Your task to perform on an android device: Open my contact list Image 0: 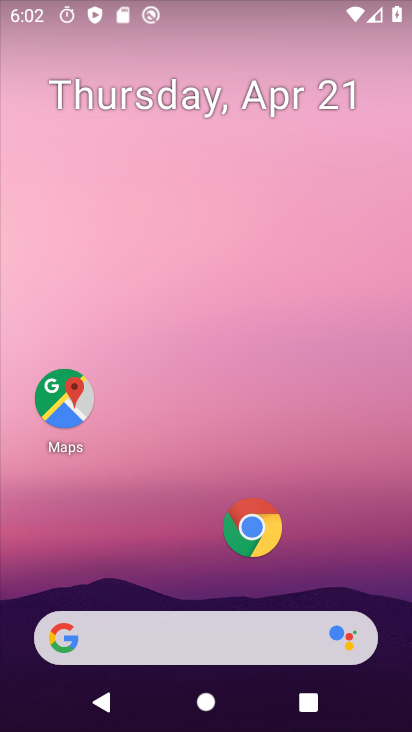
Step 0: drag from (158, 530) to (210, 39)
Your task to perform on an android device: Open my contact list Image 1: 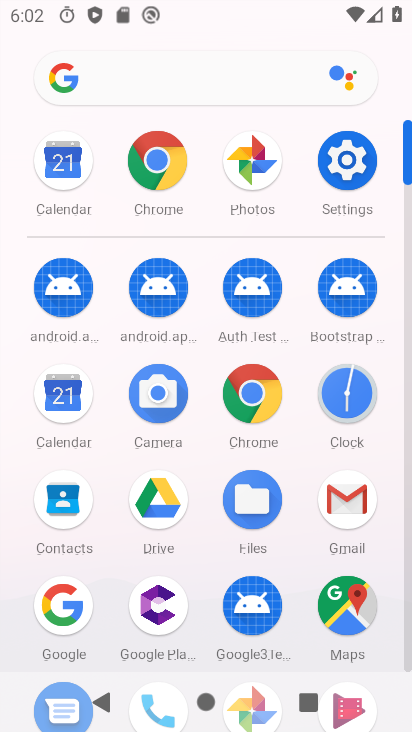
Step 1: click (66, 495)
Your task to perform on an android device: Open my contact list Image 2: 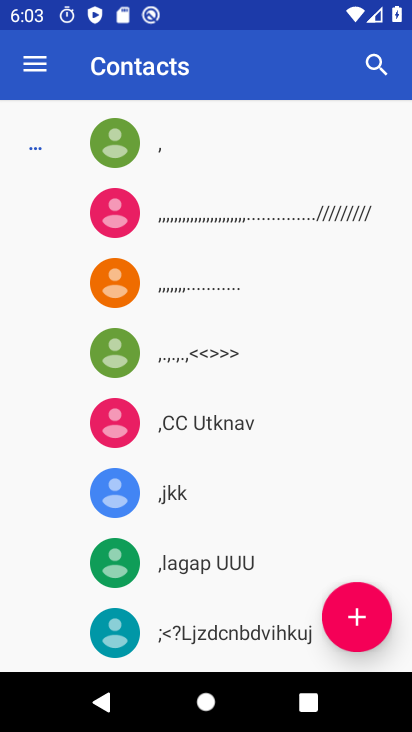
Step 2: task complete